Your task to perform on an android device: open a bookmark in the chrome app Image 0: 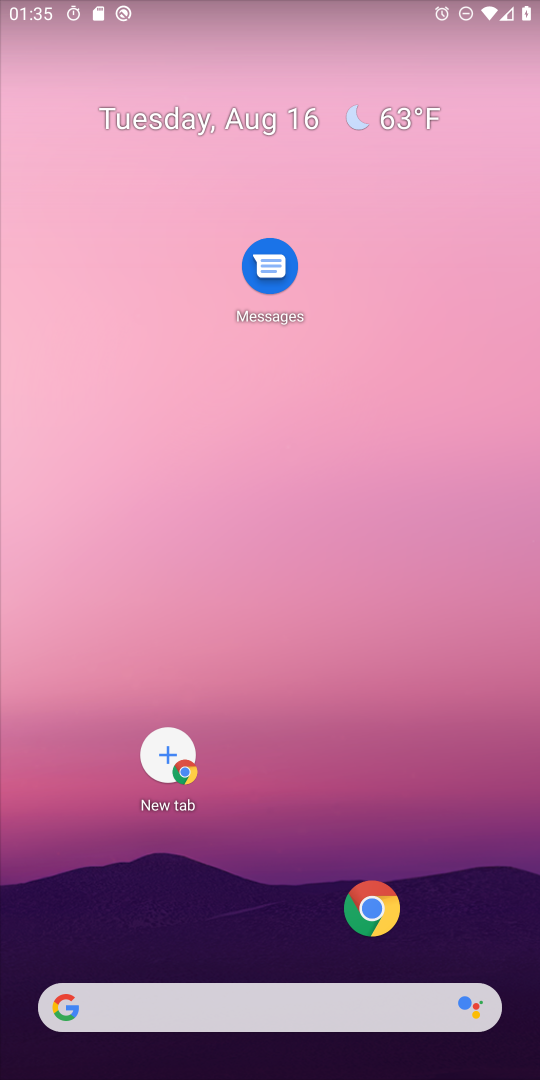
Step 0: click (371, 903)
Your task to perform on an android device: open a bookmark in the chrome app Image 1: 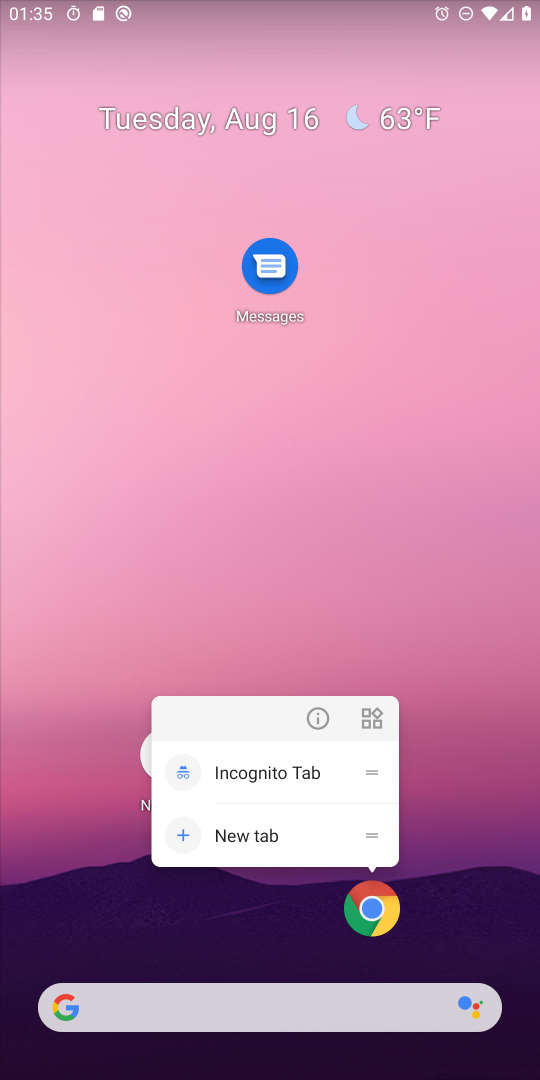
Step 1: click (371, 903)
Your task to perform on an android device: open a bookmark in the chrome app Image 2: 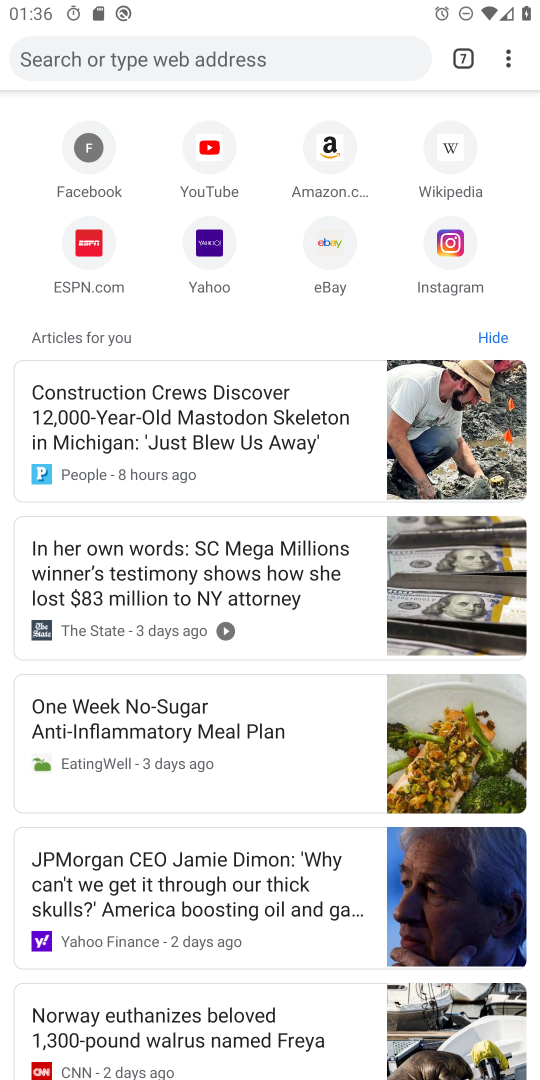
Step 2: click (515, 48)
Your task to perform on an android device: open a bookmark in the chrome app Image 3: 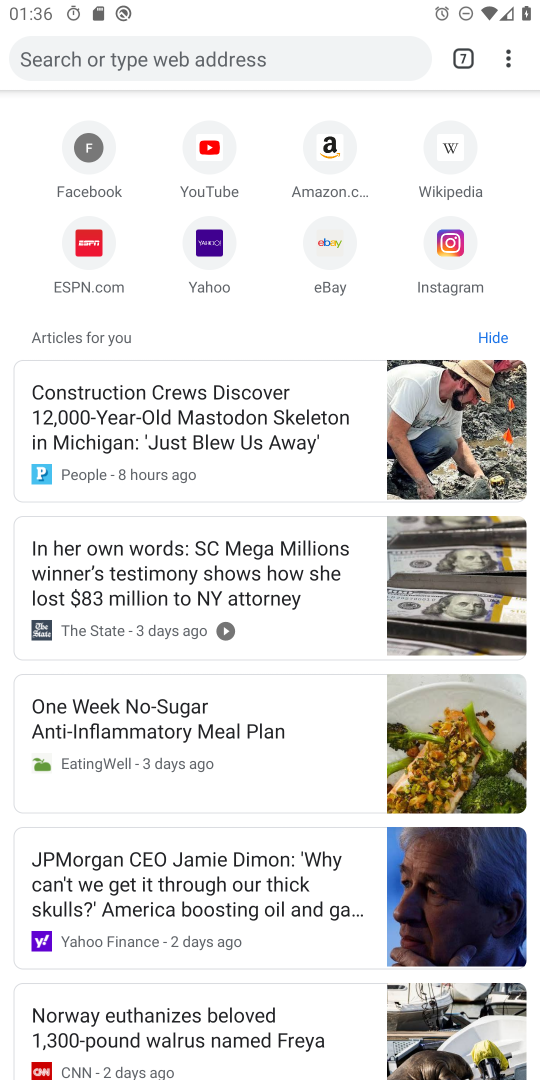
Step 3: click (507, 55)
Your task to perform on an android device: open a bookmark in the chrome app Image 4: 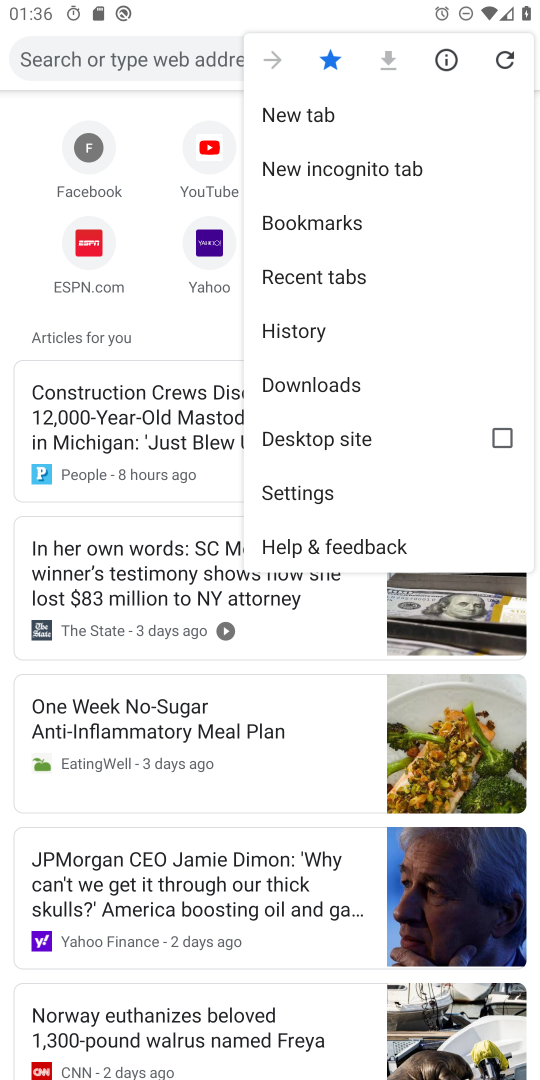
Step 4: click (369, 208)
Your task to perform on an android device: open a bookmark in the chrome app Image 5: 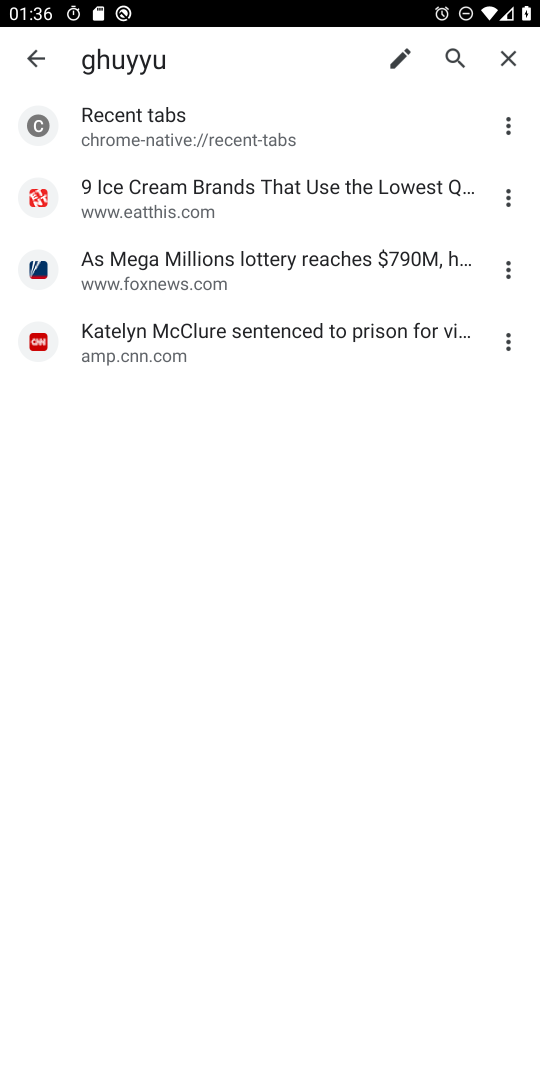
Step 5: click (240, 323)
Your task to perform on an android device: open a bookmark in the chrome app Image 6: 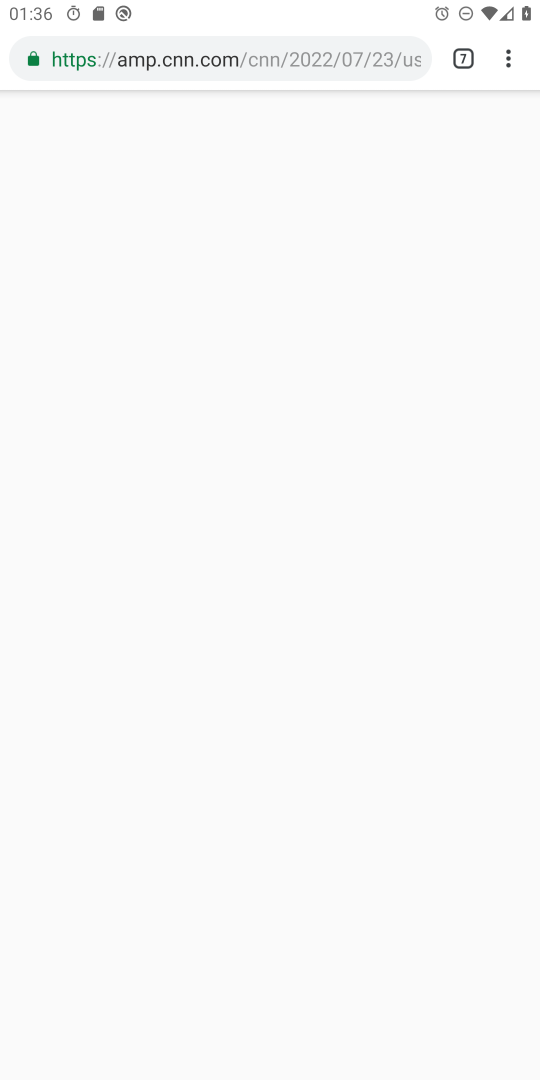
Step 6: click (509, 60)
Your task to perform on an android device: open a bookmark in the chrome app Image 7: 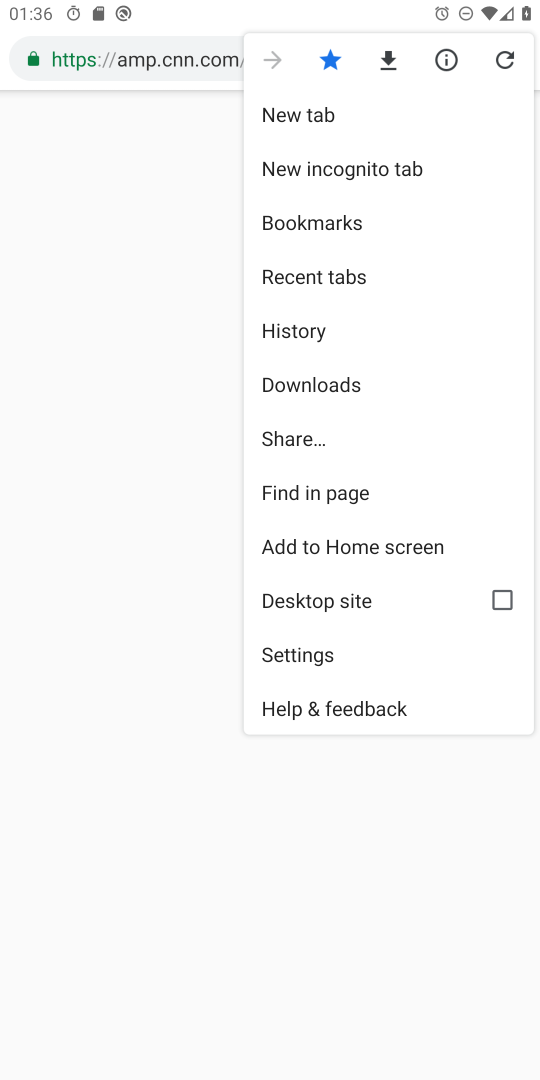
Step 7: click (509, 60)
Your task to perform on an android device: open a bookmark in the chrome app Image 8: 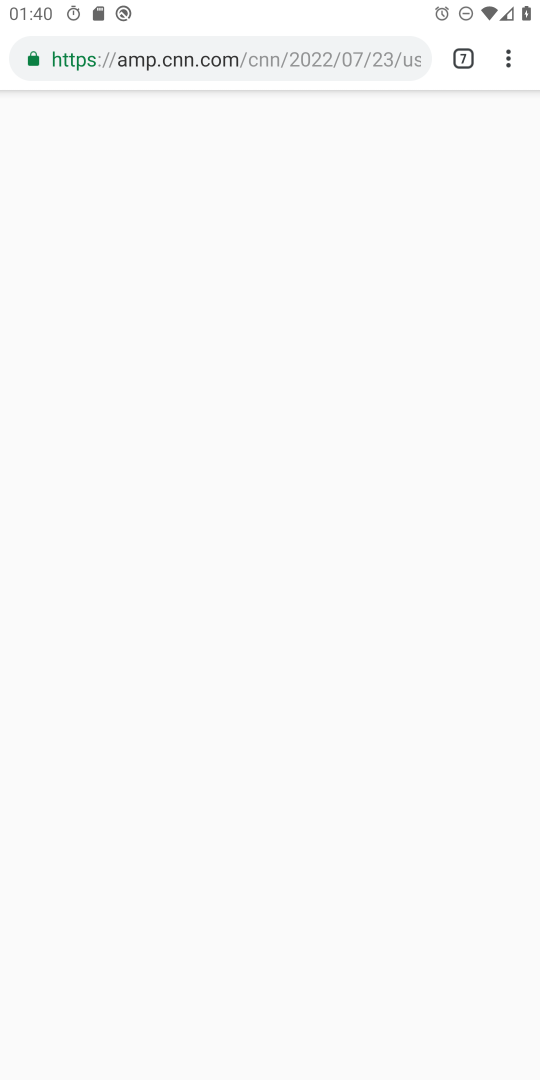
Step 8: task complete